Your task to perform on an android device: toggle pop-ups in chrome Image 0: 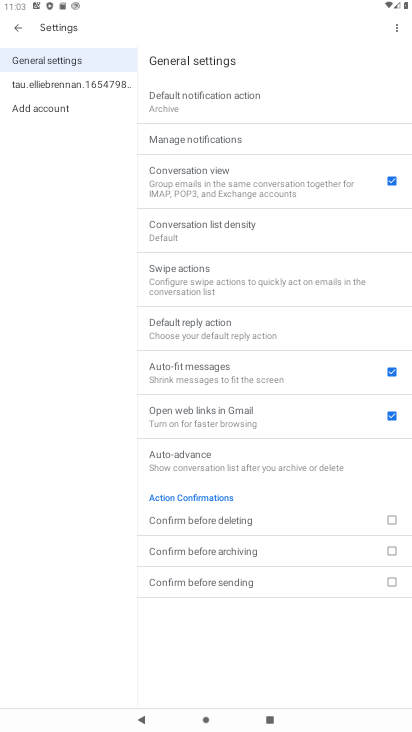
Step 0: press home button
Your task to perform on an android device: toggle pop-ups in chrome Image 1: 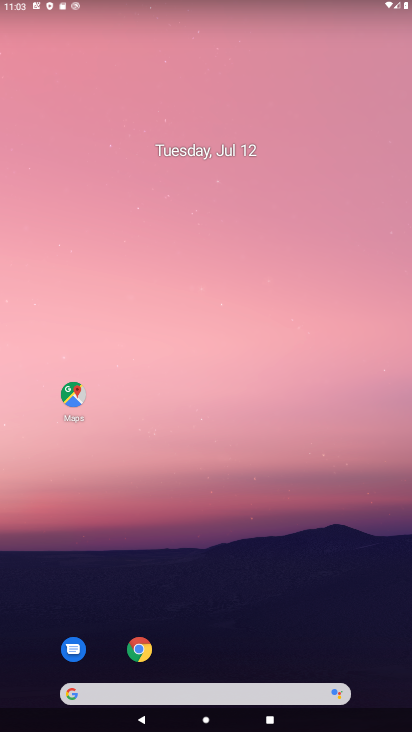
Step 1: click (139, 650)
Your task to perform on an android device: toggle pop-ups in chrome Image 2: 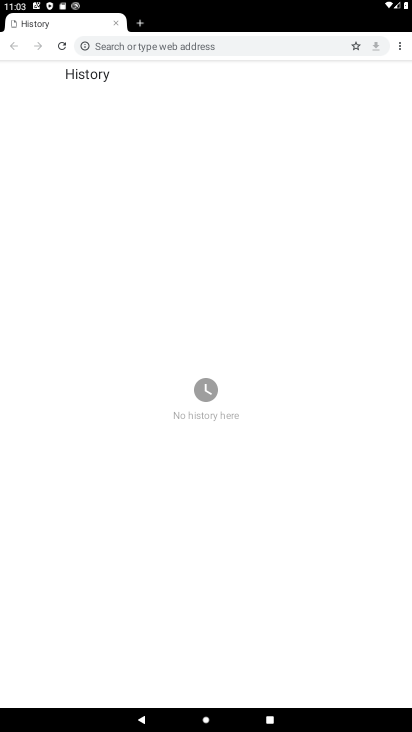
Step 2: click (400, 50)
Your task to perform on an android device: toggle pop-ups in chrome Image 3: 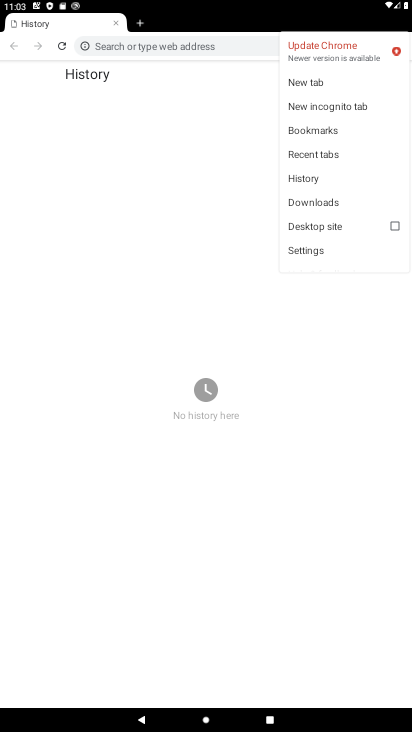
Step 3: click (309, 249)
Your task to perform on an android device: toggle pop-ups in chrome Image 4: 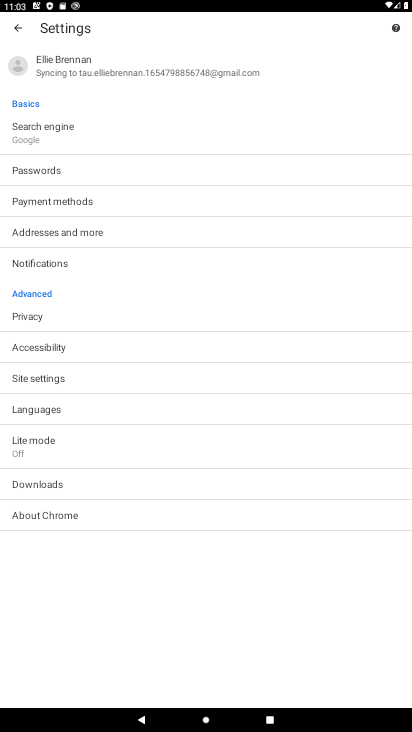
Step 4: click (45, 376)
Your task to perform on an android device: toggle pop-ups in chrome Image 5: 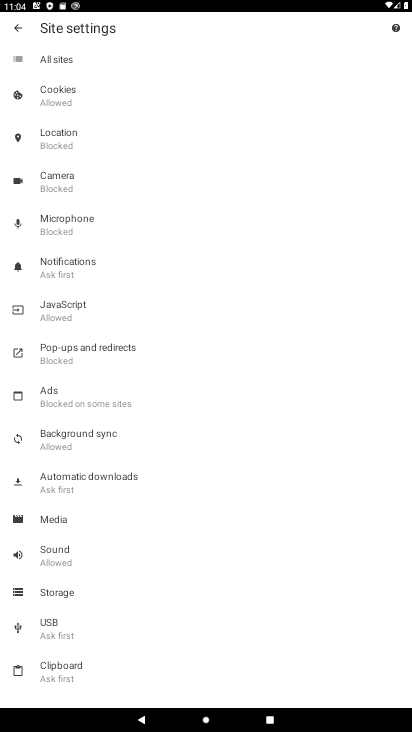
Step 5: click (66, 356)
Your task to perform on an android device: toggle pop-ups in chrome Image 6: 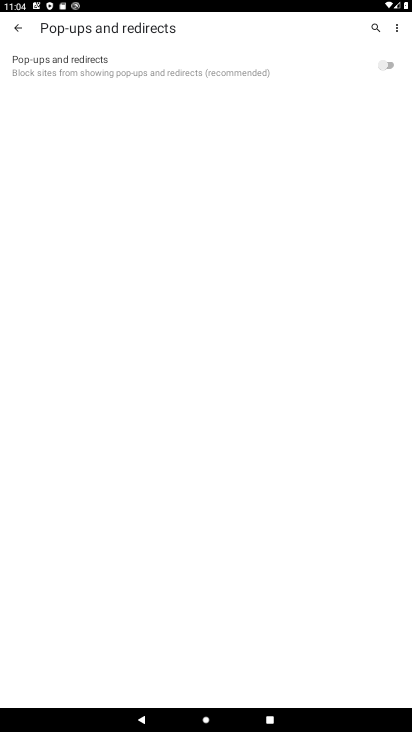
Step 6: click (390, 66)
Your task to perform on an android device: toggle pop-ups in chrome Image 7: 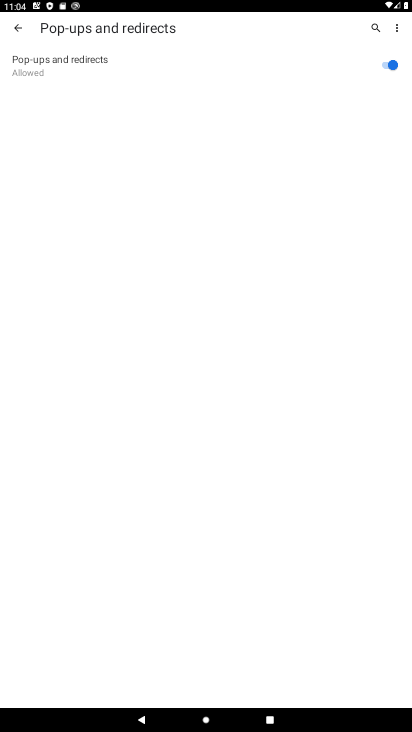
Step 7: task complete